Your task to perform on an android device: Is it going to rain tomorrow? Image 0: 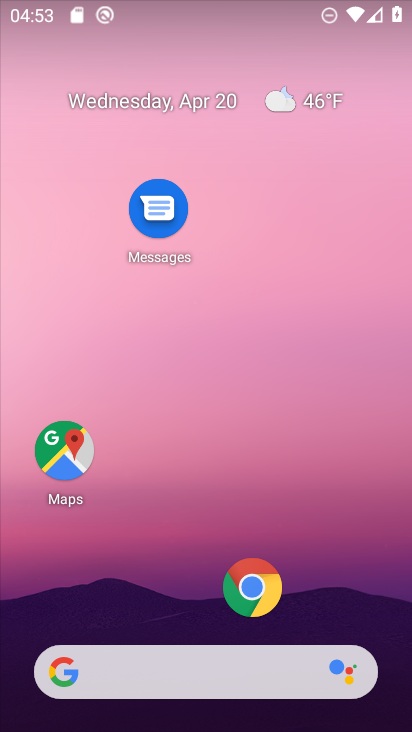
Step 0: drag from (201, 620) to (200, 199)
Your task to perform on an android device: Is it going to rain tomorrow? Image 1: 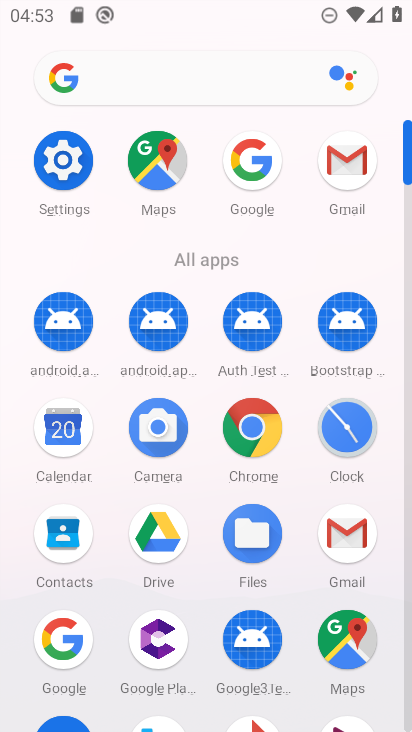
Step 1: click (56, 633)
Your task to perform on an android device: Is it going to rain tomorrow? Image 2: 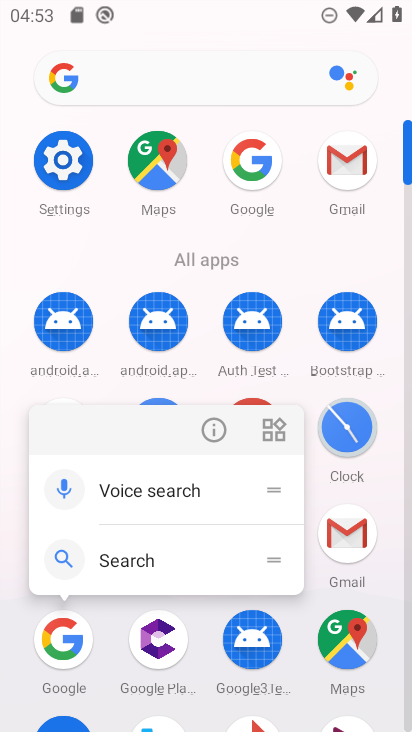
Step 2: click (56, 633)
Your task to perform on an android device: Is it going to rain tomorrow? Image 3: 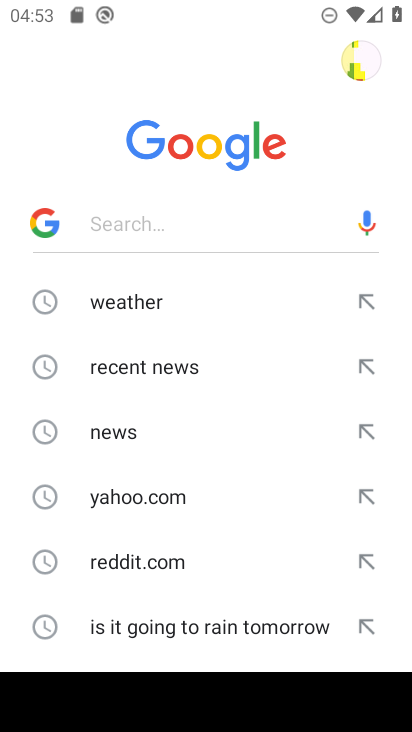
Step 3: click (49, 214)
Your task to perform on an android device: Is it going to rain tomorrow? Image 4: 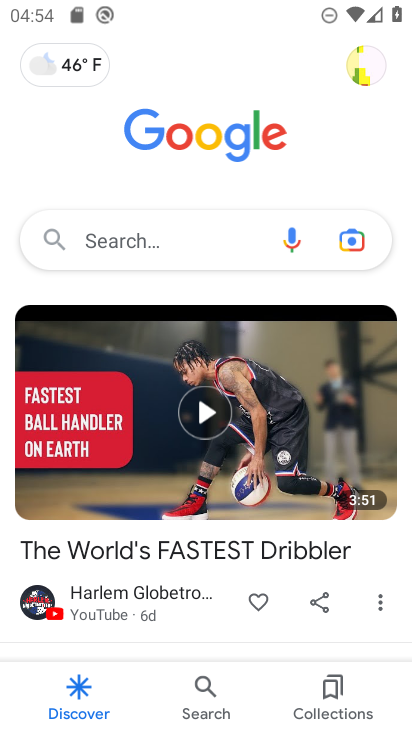
Step 4: click (67, 63)
Your task to perform on an android device: Is it going to rain tomorrow? Image 5: 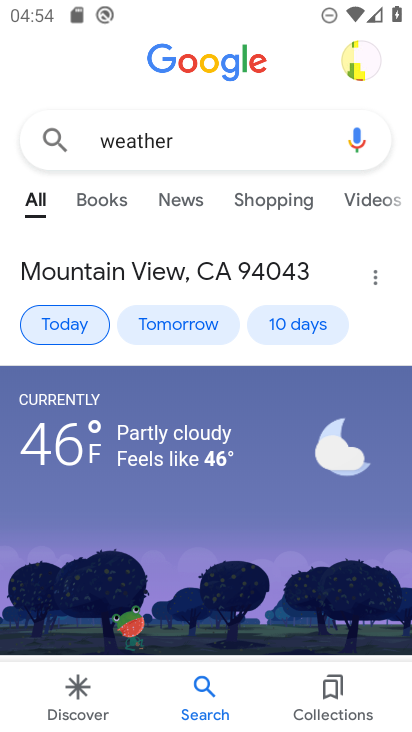
Step 5: click (218, 322)
Your task to perform on an android device: Is it going to rain tomorrow? Image 6: 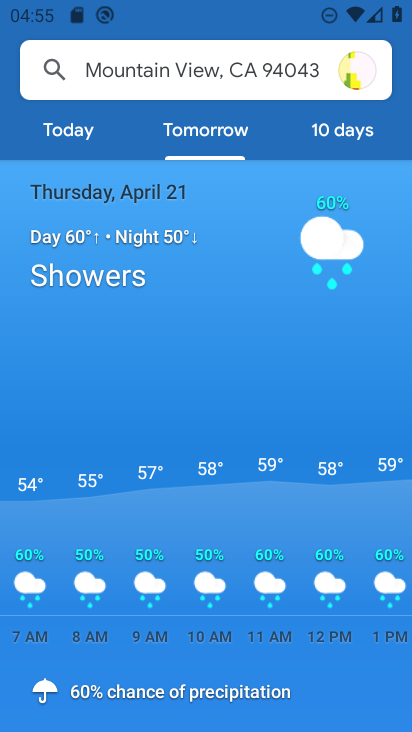
Step 6: task complete